Your task to perform on an android device: empty trash in the gmail app Image 0: 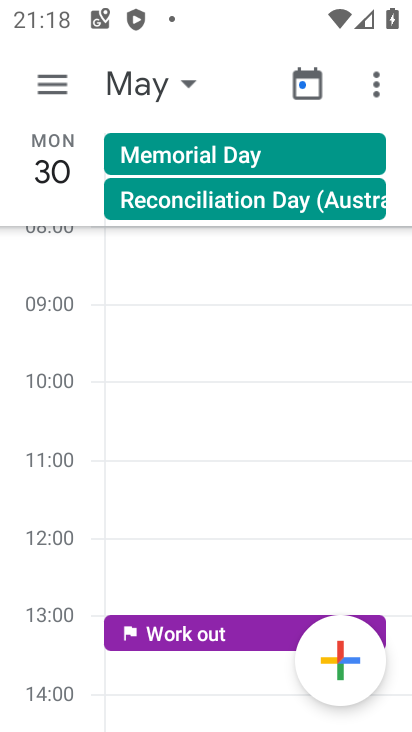
Step 0: press home button
Your task to perform on an android device: empty trash in the gmail app Image 1: 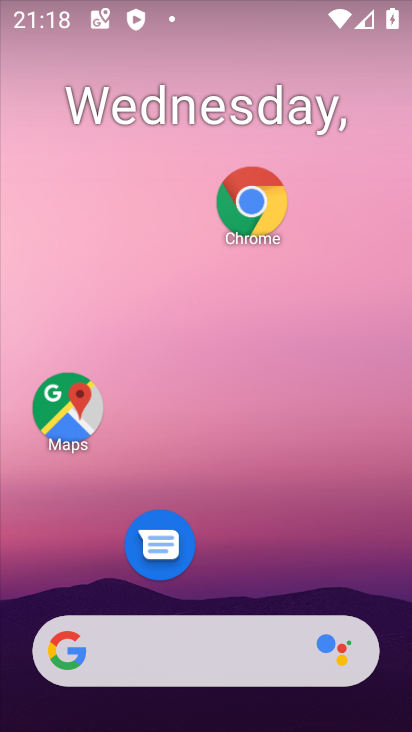
Step 1: drag from (238, 570) to (197, 267)
Your task to perform on an android device: empty trash in the gmail app Image 2: 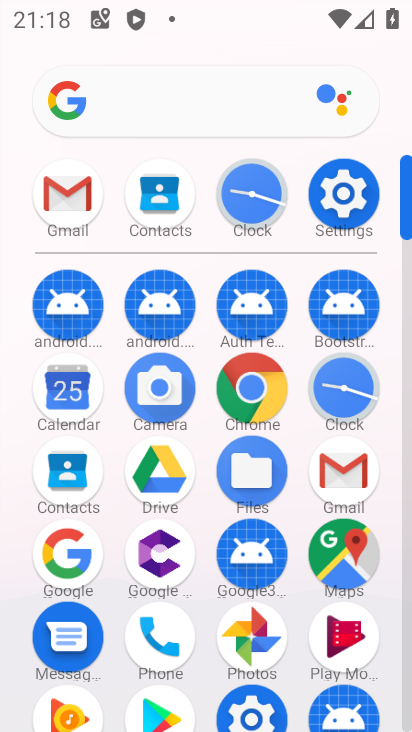
Step 2: click (73, 221)
Your task to perform on an android device: empty trash in the gmail app Image 3: 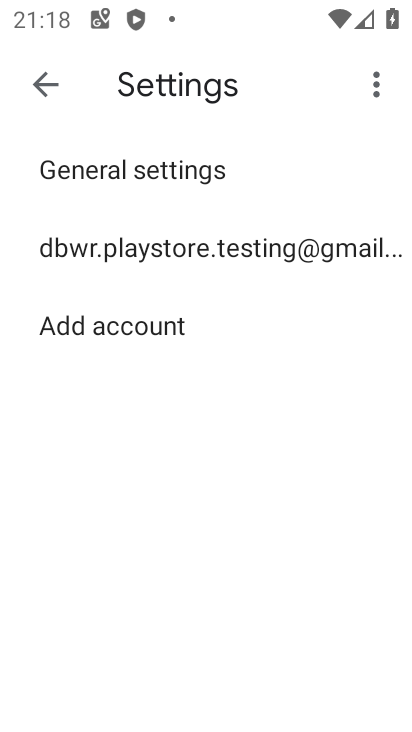
Step 3: click (65, 53)
Your task to perform on an android device: empty trash in the gmail app Image 4: 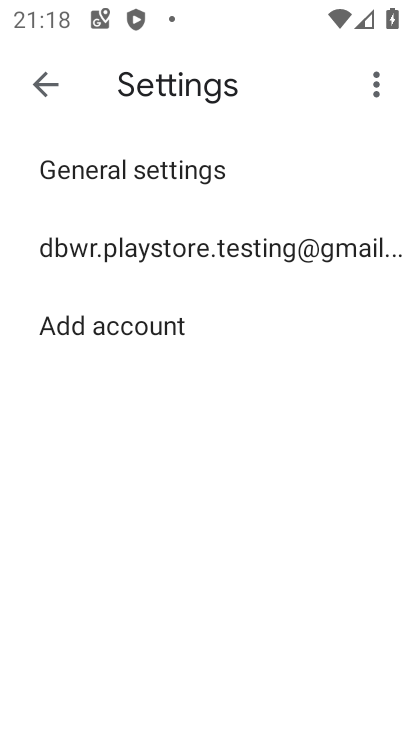
Step 4: click (58, 94)
Your task to perform on an android device: empty trash in the gmail app Image 5: 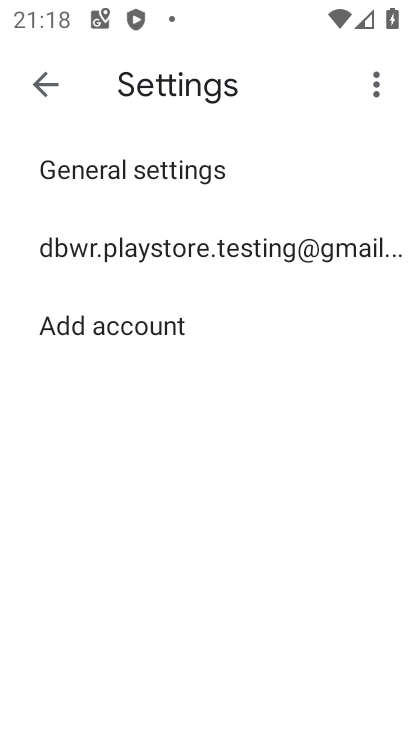
Step 5: click (58, 94)
Your task to perform on an android device: empty trash in the gmail app Image 6: 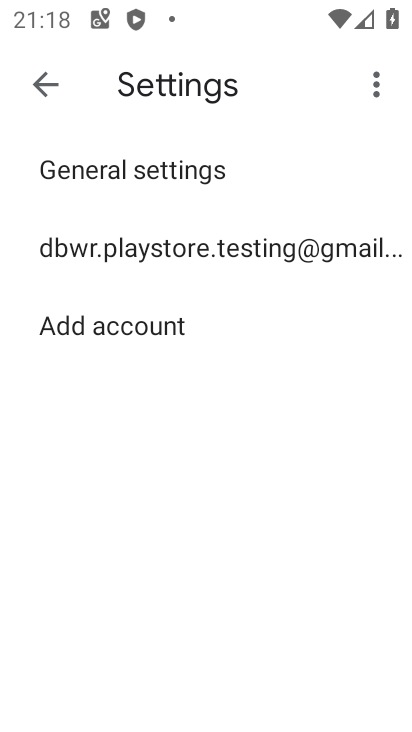
Step 6: click (58, 94)
Your task to perform on an android device: empty trash in the gmail app Image 7: 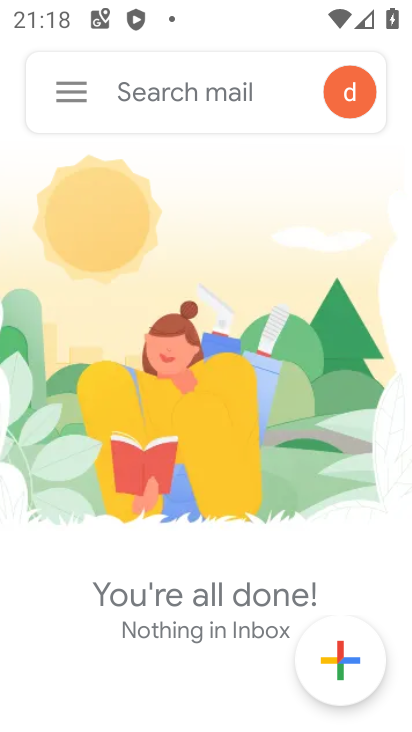
Step 7: click (58, 94)
Your task to perform on an android device: empty trash in the gmail app Image 8: 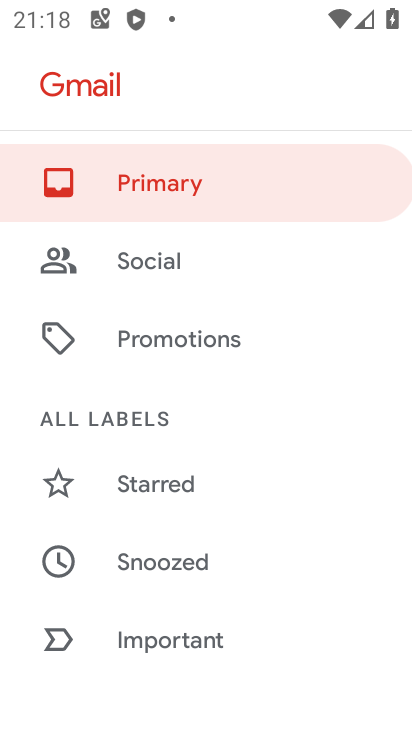
Step 8: drag from (107, 629) to (307, 42)
Your task to perform on an android device: empty trash in the gmail app Image 9: 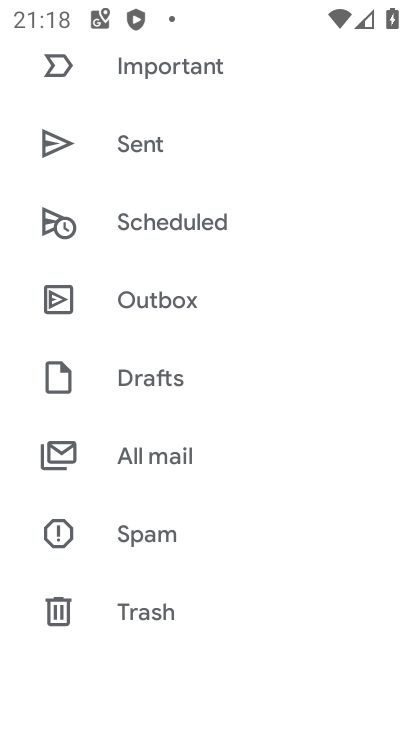
Step 9: click (155, 609)
Your task to perform on an android device: empty trash in the gmail app Image 10: 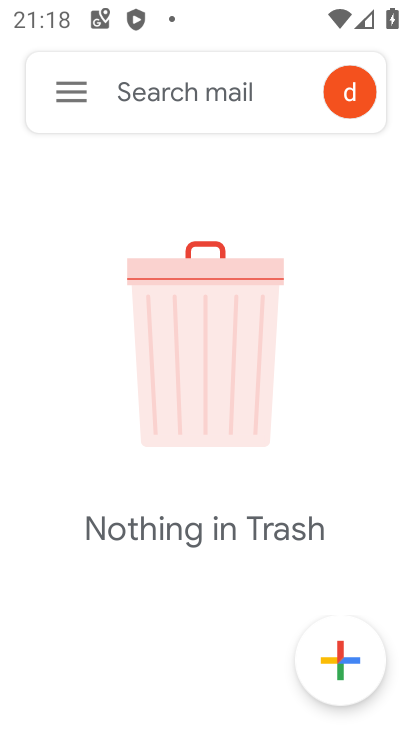
Step 10: task complete